Your task to perform on an android device: Go to location settings Image 0: 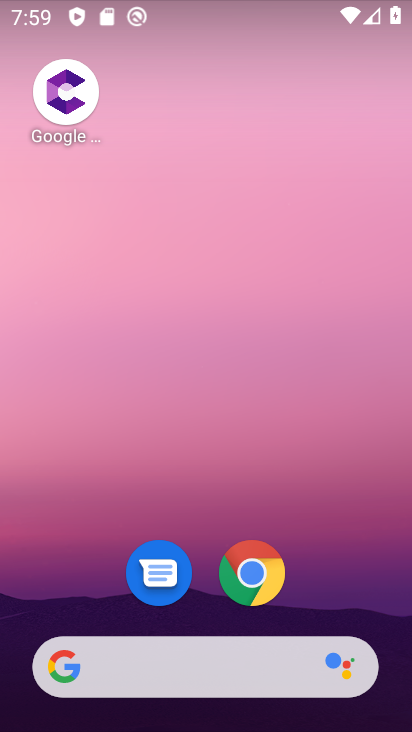
Step 0: drag from (358, 619) to (245, 106)
Your task to perform on an android device: Go to location settings Image 1: 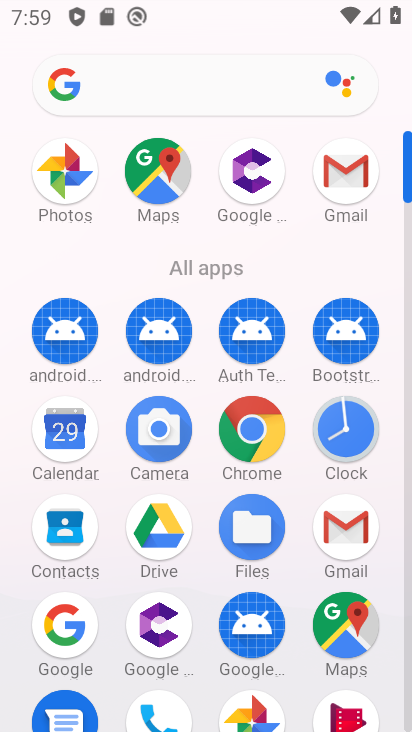
Step 1: click (408, 650)
Your task to perform on an android device: Go to location settings Image 2: 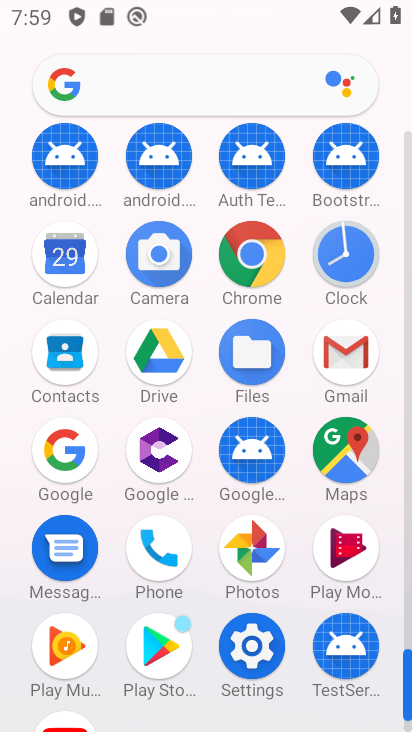
Step 2: click (270, 665)
Your task to perform on an android device: Go to location settings Image 3: 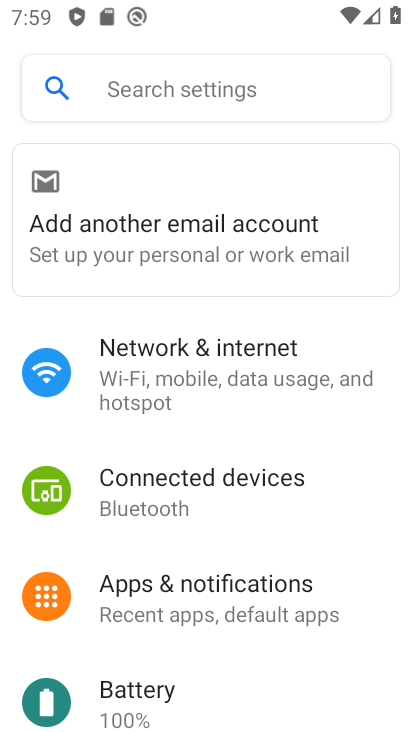
Step 3: drag from (255, 636) to (200, 167)
Your task to perform on an android device: Go to location settings Image 4: 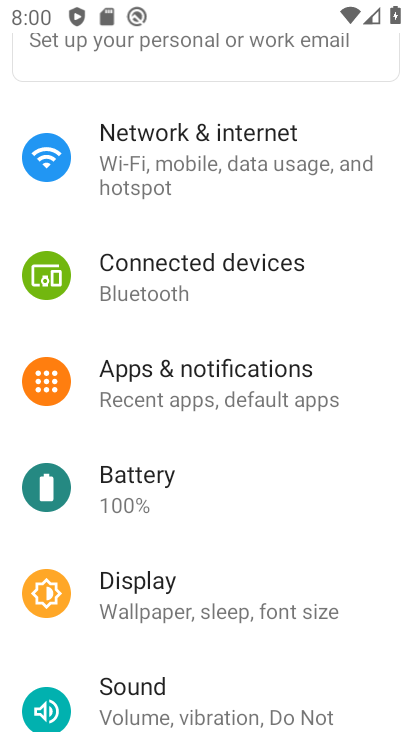
Step 4: drag from (202, 650) to (161, 129)
Your task to perform on an android device: Go to location settings Image 5: 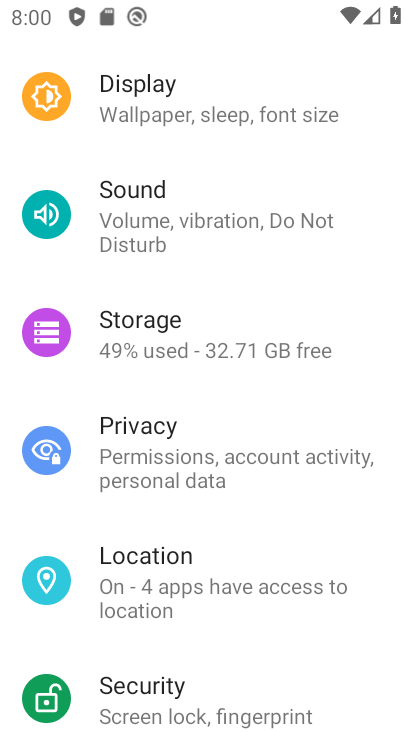
Step 5: click (168, 597)
Your task to perform on an android device: Go to location settings Image 6: 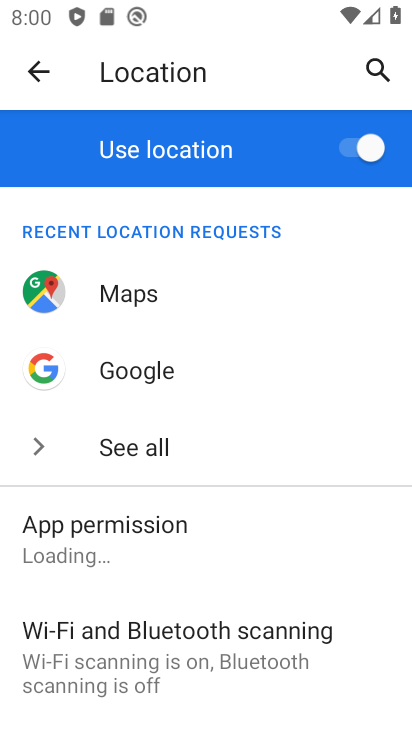
Step 6: task complete